Your task to perform on an android device: Go to settings Image 0: 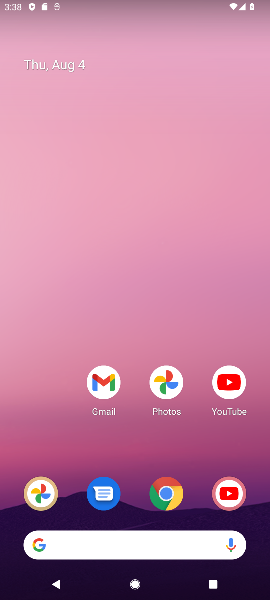
Step 0: drag from (131, 536) to (216, 181)
Your task to perform on an android device: Go to settings Image 1: 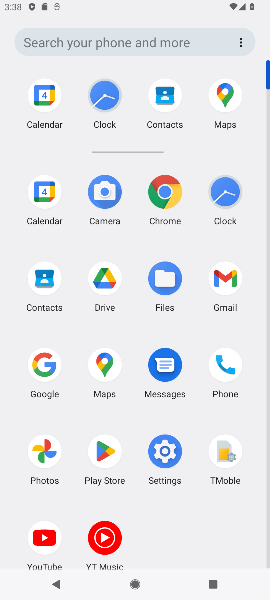
Step 1: click (172, 450)
Your task to perform on an android device: Go to settings Image 2: 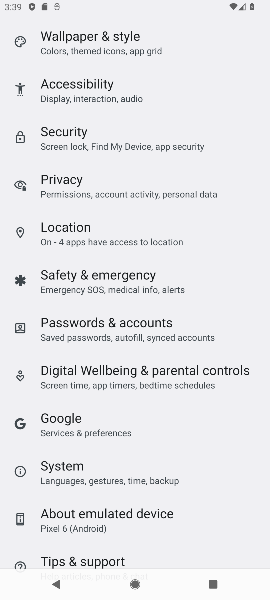
Step 2: task complete